Your task to perform on an android device: turn vacation reply on in the gmail app Image 0: 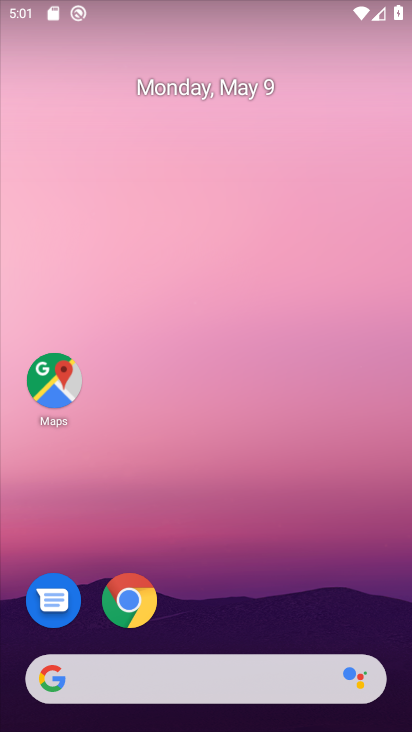
Step 0: drag from (274, 654) to (217, 105)
Your task to perform on an android device: turn vacation reply on in the gmail app Image 1: 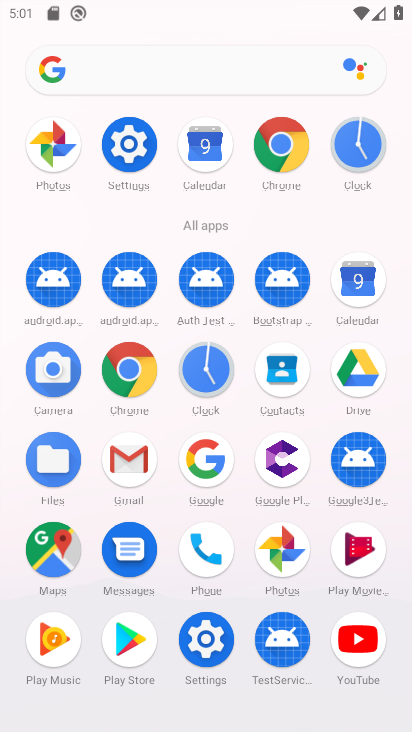
Step 1: click (125, 469)
Your task to perform on an android device: turn vacation reply on in the gmail app Image 2: 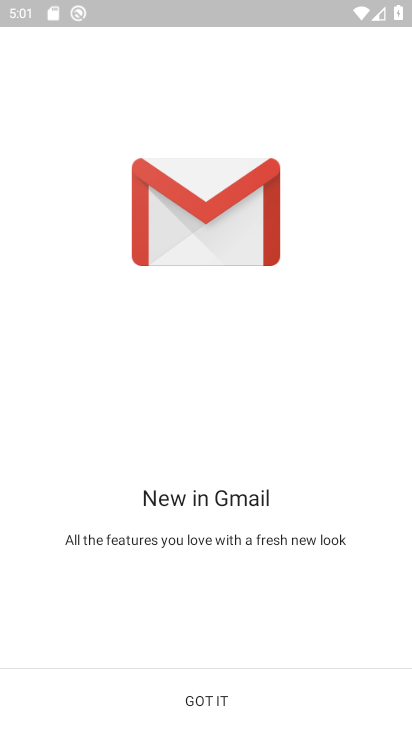
Step 2: click (238, 706)
Your task to perform on an android device: turn vacation reply on in the gmail app Image 3: 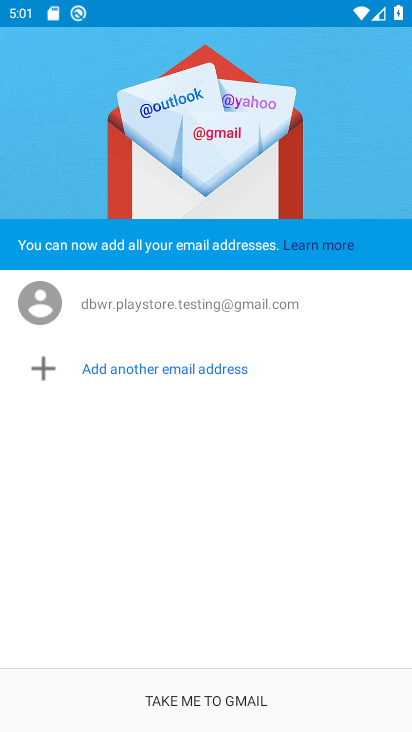
Step 3: click (262, 696)
Your task to perform on an android device: turn vacation reply on in the gmail app Image 4: 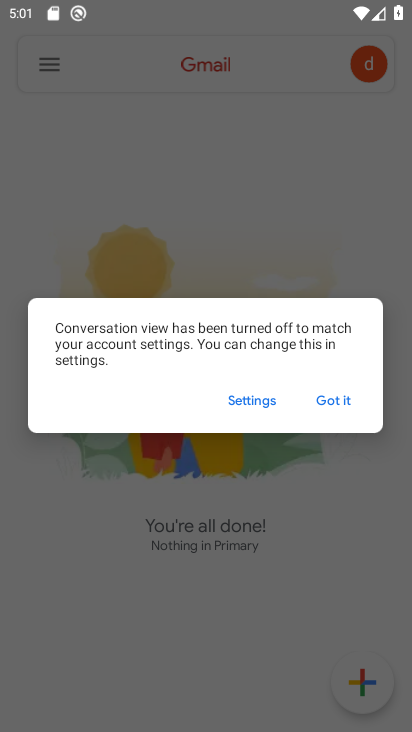
Step 4: click (330, 399)
Your task to perform on an android device: turn vacation reply on in the gmail app Image 5: 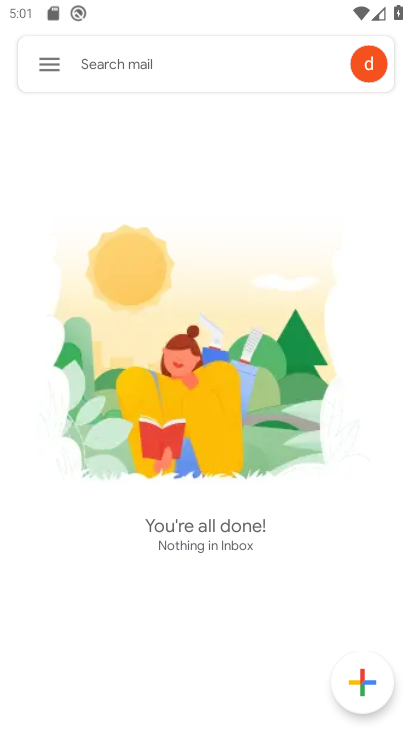
Step 5: click (57, 63)
Your task to perform on an android device: turn vacation reply on in the gmail app Image 6: 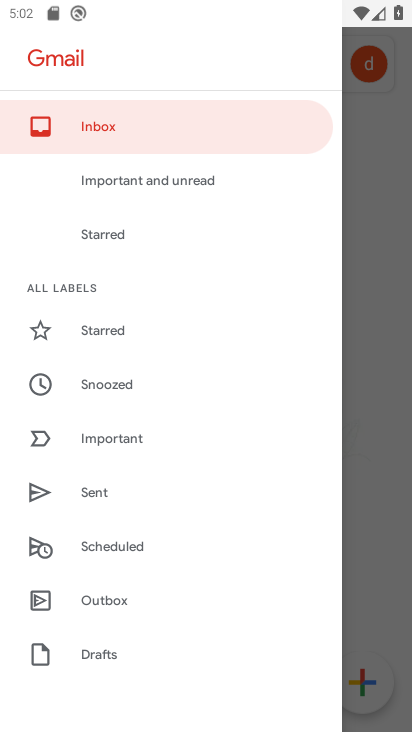
Step 6: drag from (201, 651) to (198, 159)
Your task to perform on an android device: turn vacation reply on in the gmail app Image 7: 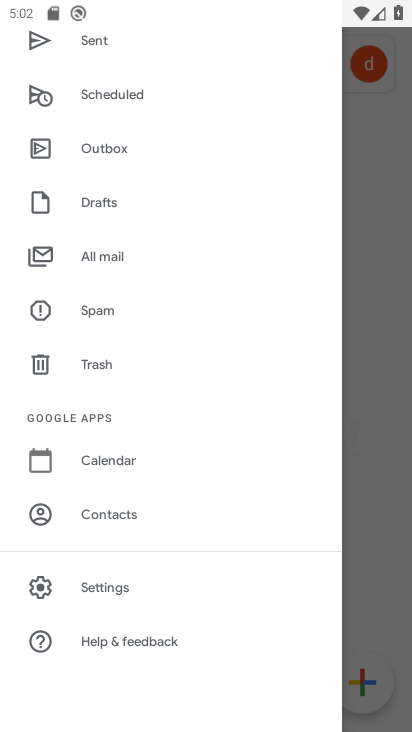
Step 7: click (128, 596)
Your task to perform on an android device: turn vacation reply on in the gmail app Image 8: 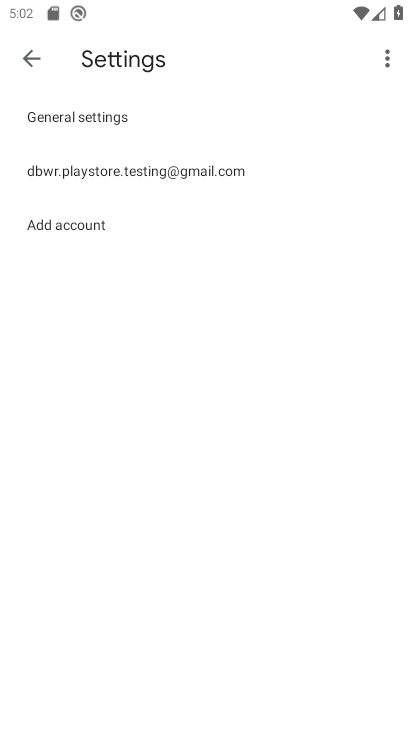
Step 8: click (210, 172)
Your task to perform on an android device: turn vacation reply on in the gmail app Image 9: 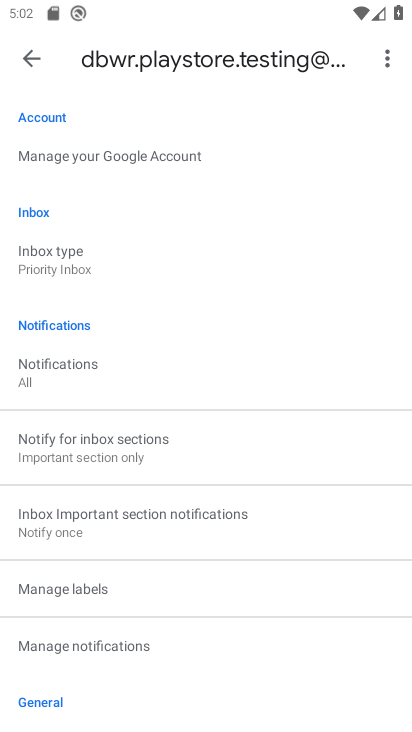
Step 9: drag from (158, 657) to (155, 217)
Your task to perform on an android device: turn vacation reply on in the gmail app Image 10: 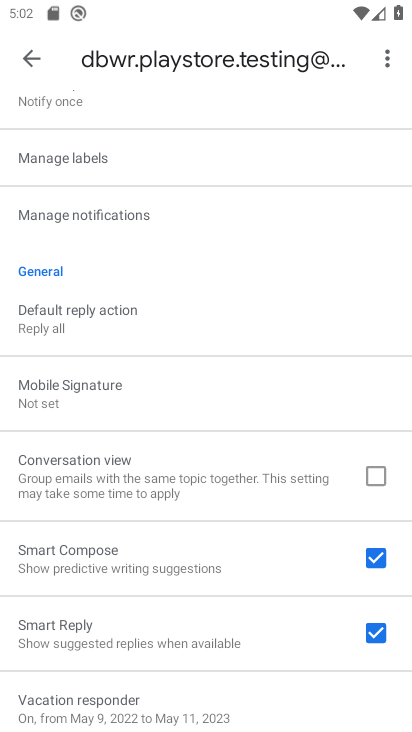
Step 10: click (253, 693)
Your task to perform on an android device: turn vacation reply on in the gmail app Image 11: 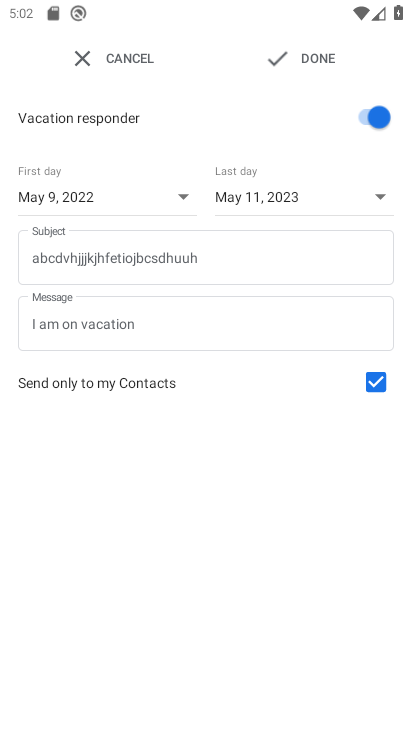
Step 11: click (281, 50)
Your task to perform on an android device: turn vacation reply on in the gmail app Image 12: 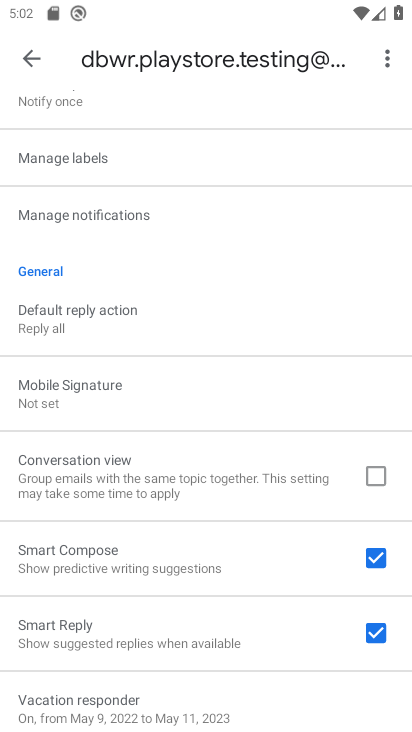
Step 12: task complete